Your task to perform on an android device: add a contact in the contacts app Image 0: 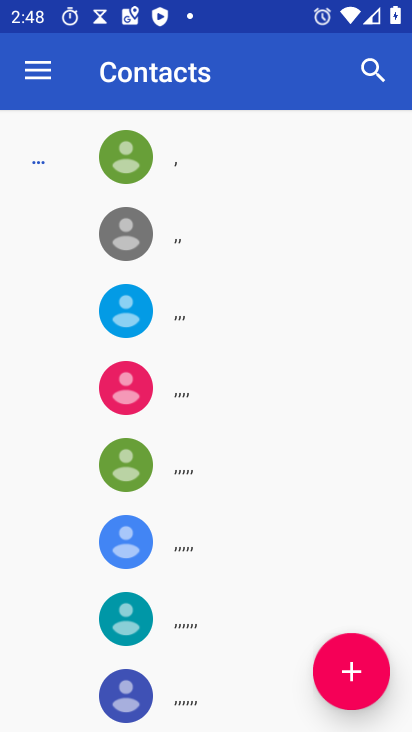
Step 0: press home button
Your task to perform on an android device: add a contact in the contacts app Image 1: 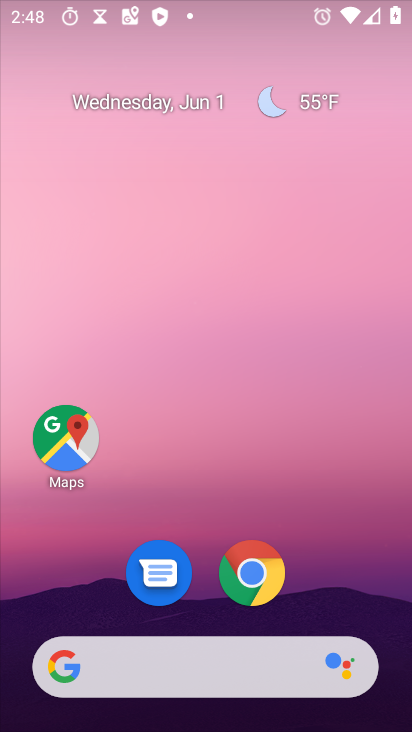
Step 1: drag from (340, 568) to (329, 21)
Your task to perform on an android device: add a contact in the contacts app Image 2: 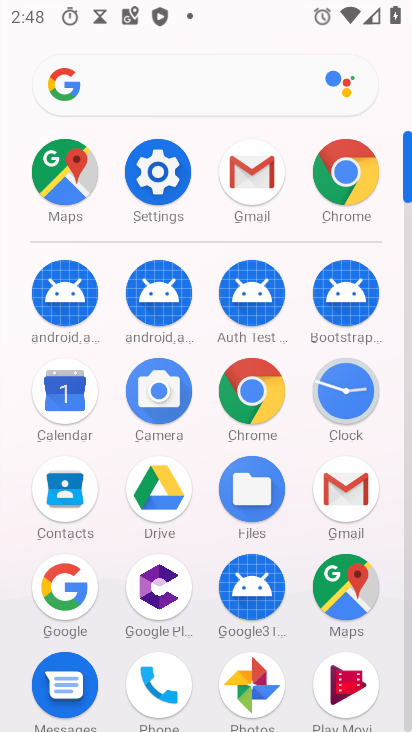
Step 2: click (178, 679)
Your task to perform on an android device: add a contact in the contacts app Image 3: 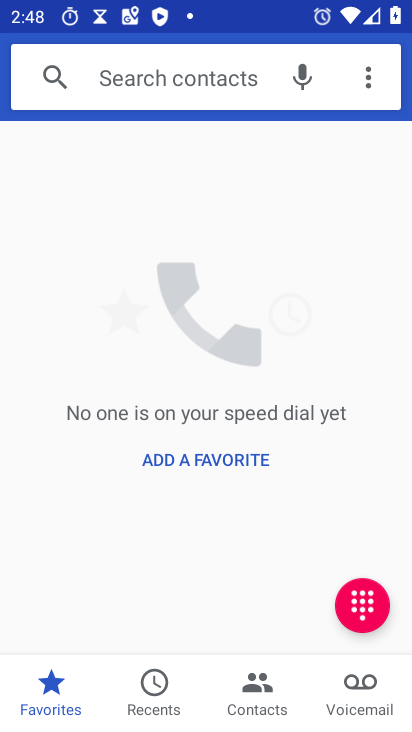
Step 3: click (241, 684)
Your task to perform on an android device: add a contact in the contacts app Image 4: 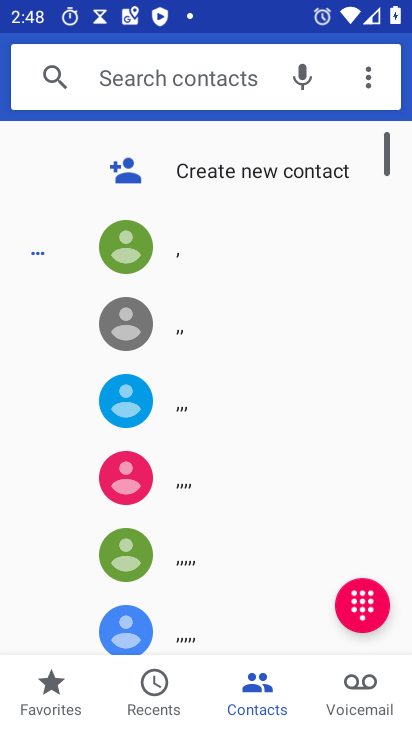
Step 4: click (146, 178)
Your task to perform on an android device: add a contact in the contacts app Image 5: 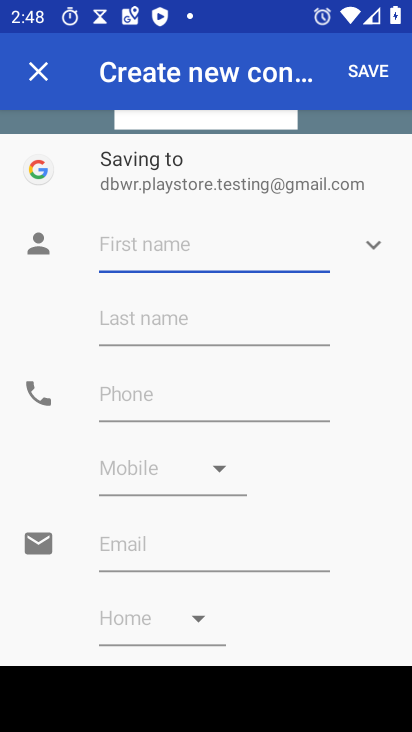
Step 5: type "trtr"
Your task to perform on an android device: add a contact in the contacts app Image 6: 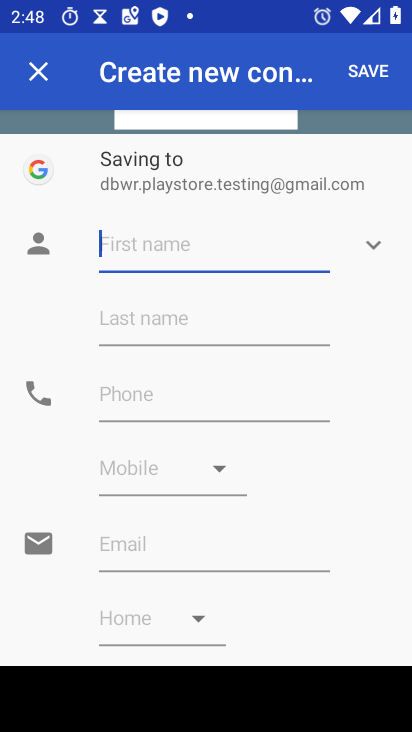
Step 6: click (200, 414)
Your task to perform on an android device: add a contact in the contacts app Image 7: 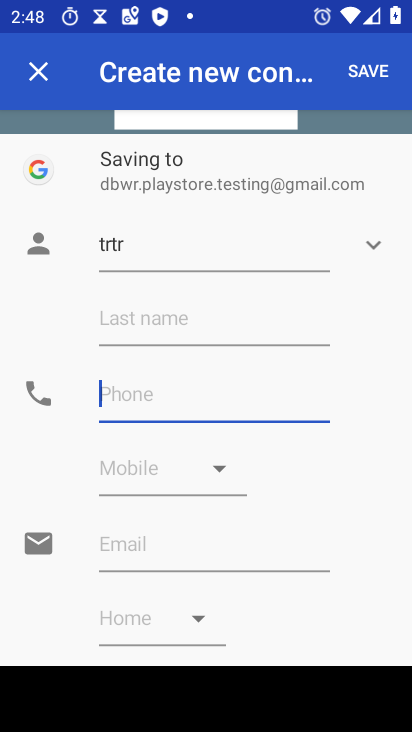
Step 7: type "5678999987"
Your task to perform on an android device: add a contact in the contacts app Image 8: 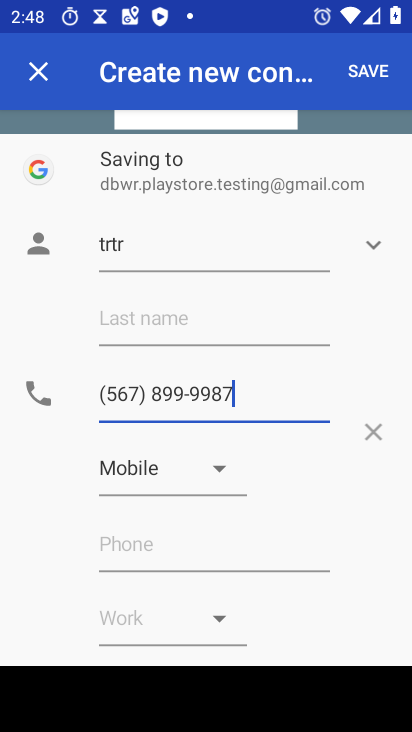
Step 8: click (352, 79)
Your task to perform on an android device: add a contact in the contacts app Image 9: 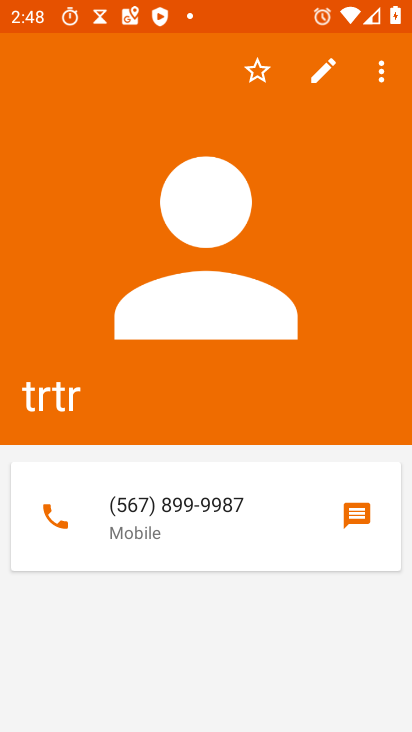
Step 9: task complete